Your task to perform on an android device: change notification settings in the gmail app Image 0: 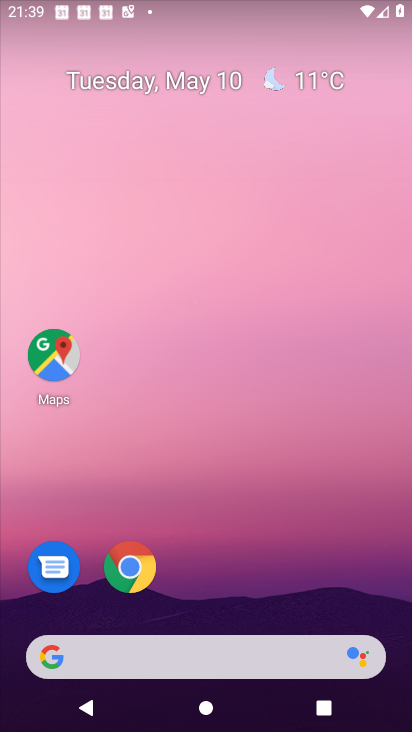
Step 0: drag from (147, 638) to (169, 239)
Your task to perform on an android device: change notification settings in the gmail app Image 1: 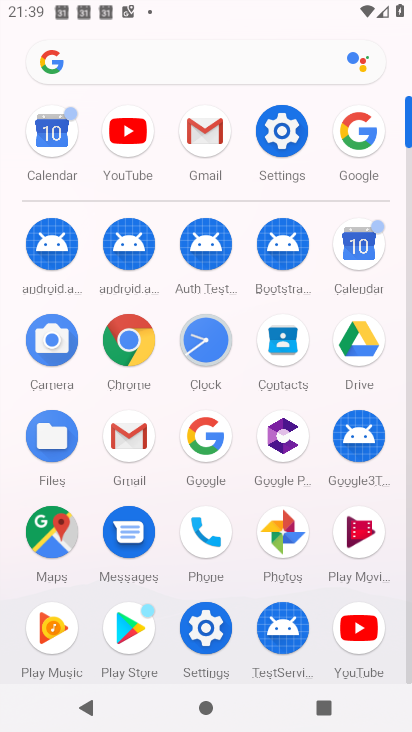
Step 1: click (196, 116)
Your task to perform on an android device: change notification settings in the gmail app Image 2: 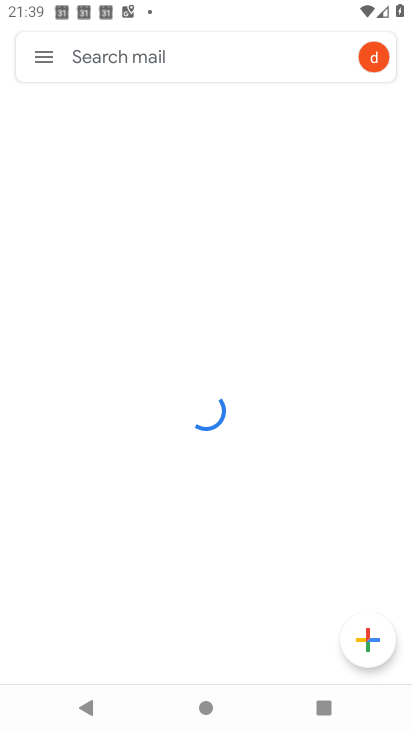
Step 2: click (47, 59)
Your task to perform on an android device: change notification settings in the gmail app Image 3: 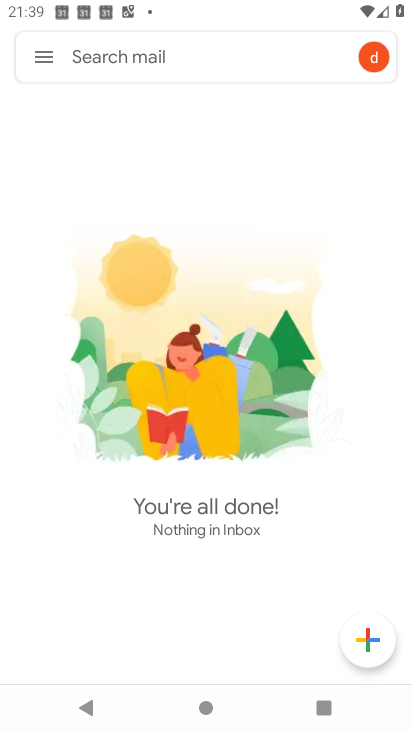
Step 3: click (33, 55)
Your task to perform on an android device: change notification settings in the gmail app Image 4: 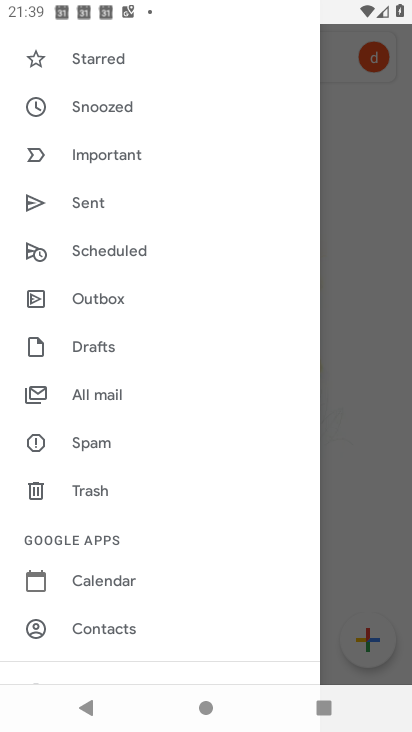
Step 4: drag from (92, 653) to (91, 394)
Your task to perform on an android device: change notification settings in the gmail app Image 5: 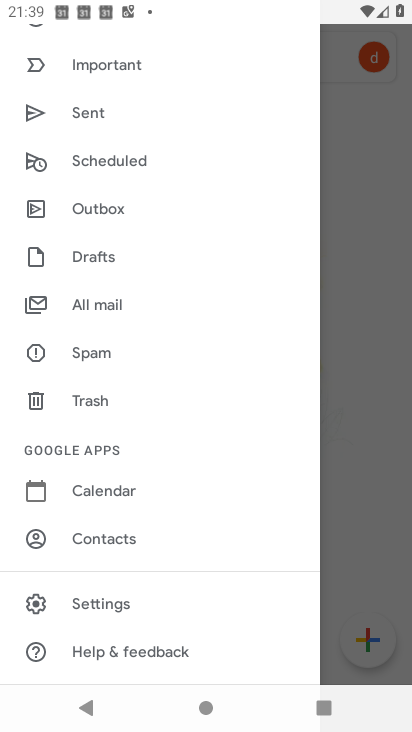
Step 5: click (98, 607)
Your task to perform on an android device: change notification settings in the gmail app Image 6: 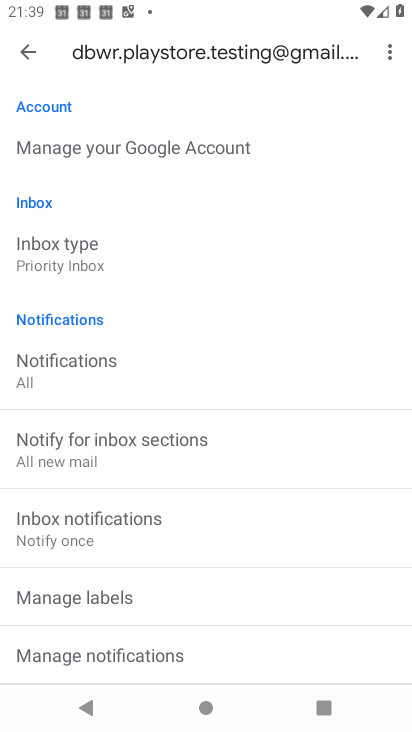
Step 6: click (67, 378)
Your task to perform on an android device: change notification settings in the gmail app Image 7: 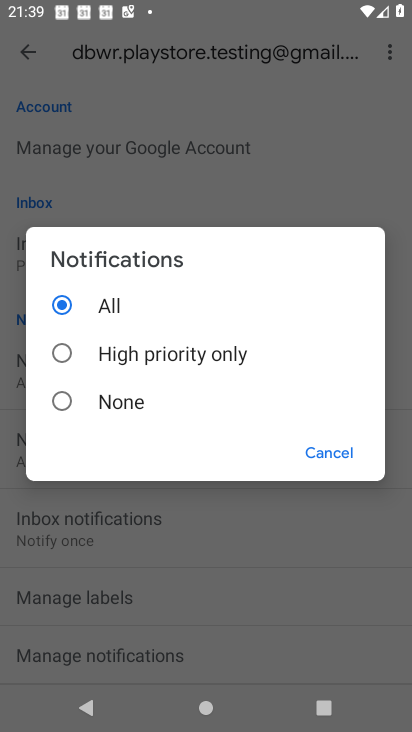
Step 7: click (74, 400)
Your task to perform on an android device: change notification settings in the gmail app Image 8: 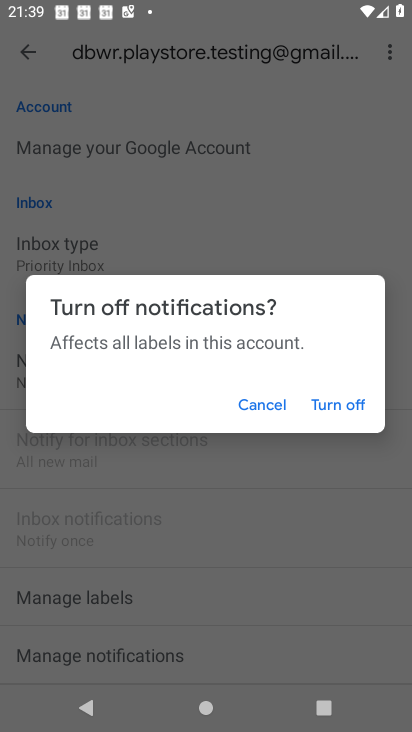
Step 8: click (342, 404)
Your task to perform on an android device: change notification settings in the gmail app Image 9: 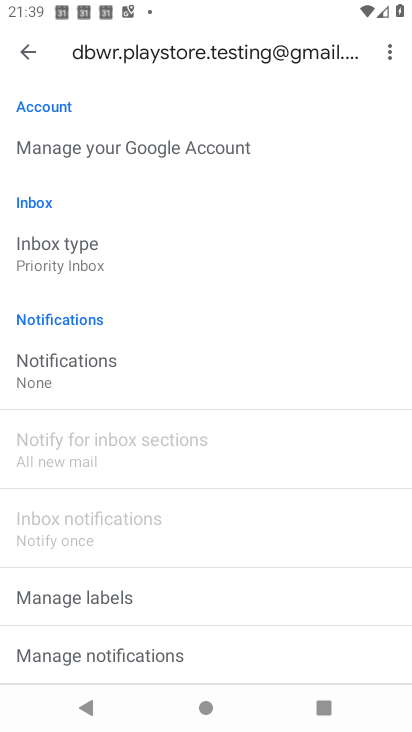
Step 9: task complete